Your task to perform on an android device: Clear all items from cart on ebay.com. Image 0: 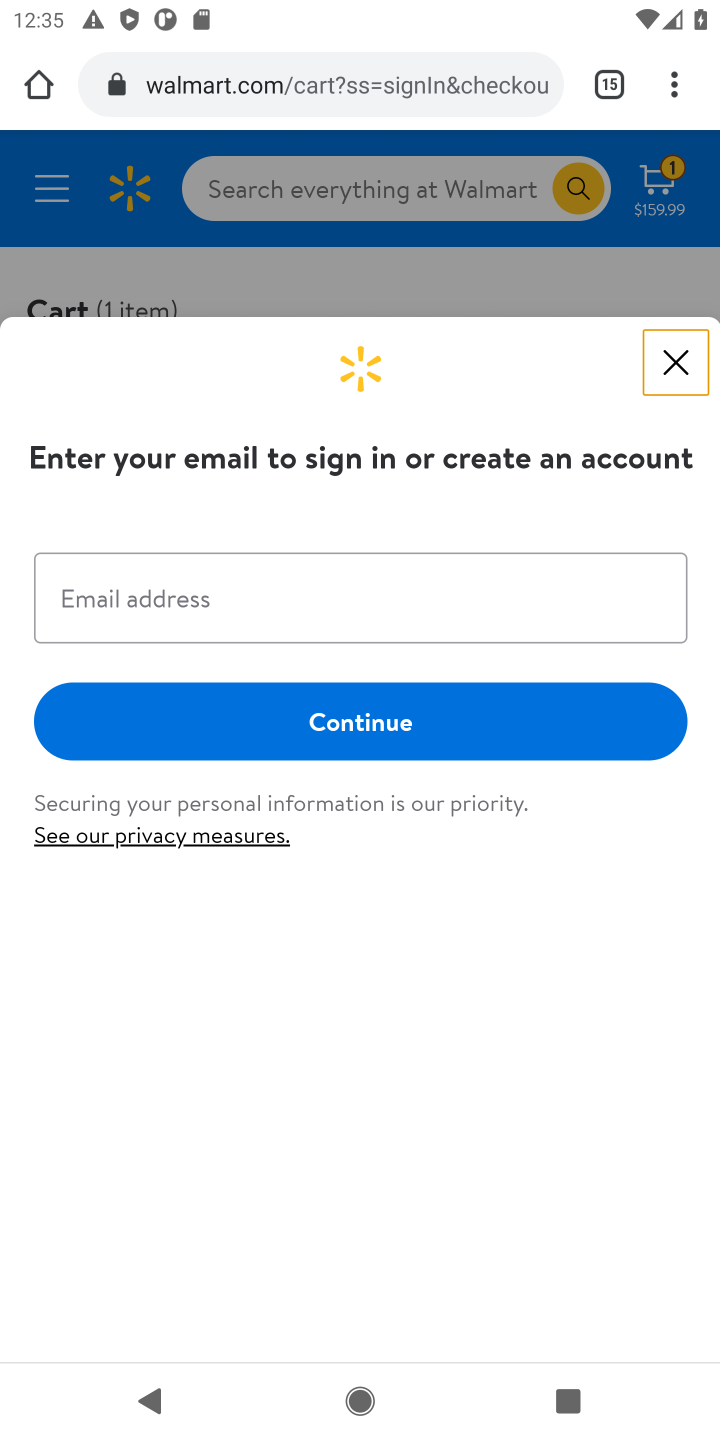
Step 0: press home button
Your task to perform on an android device: Clear all items from cart on ebay.com. Image 1: 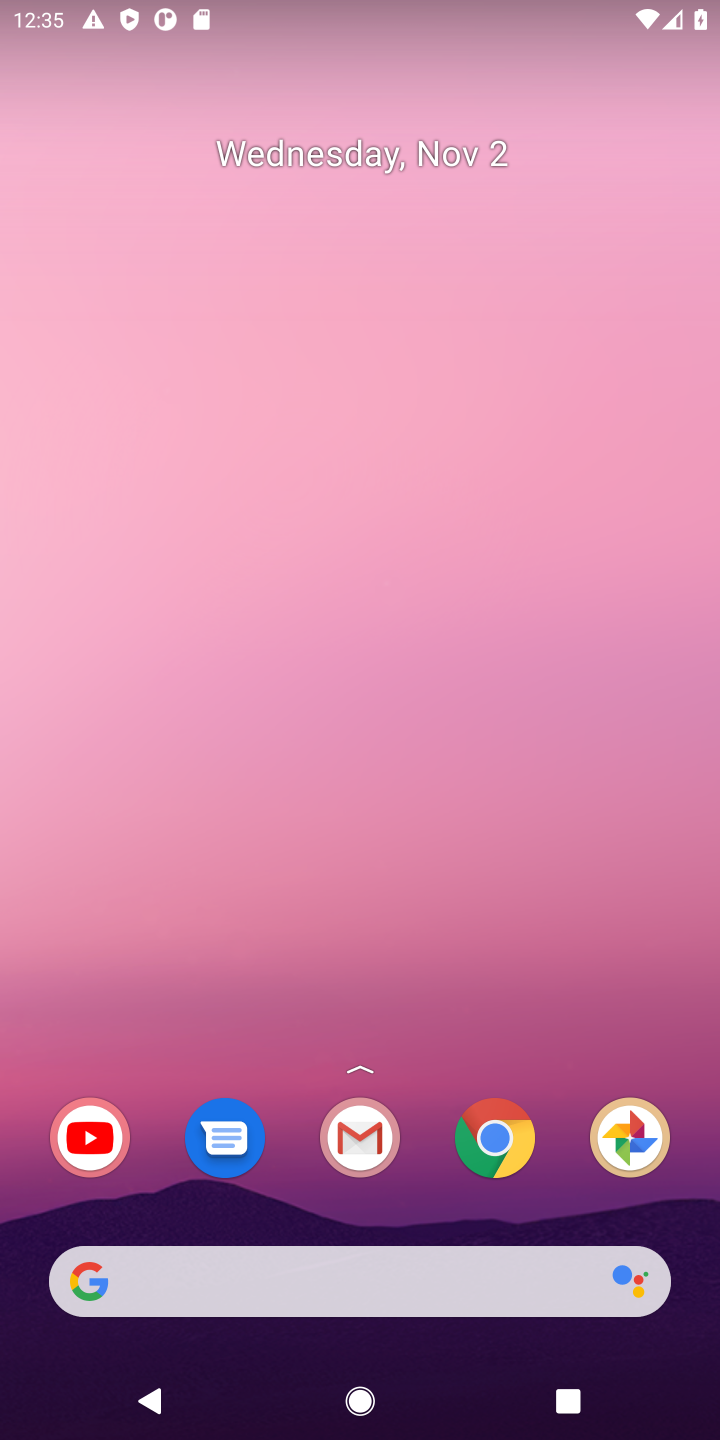
Step 1: click (136, 1261)
Your task to perform on an android device: Clear all items from cart on ebay.com. Image 2: 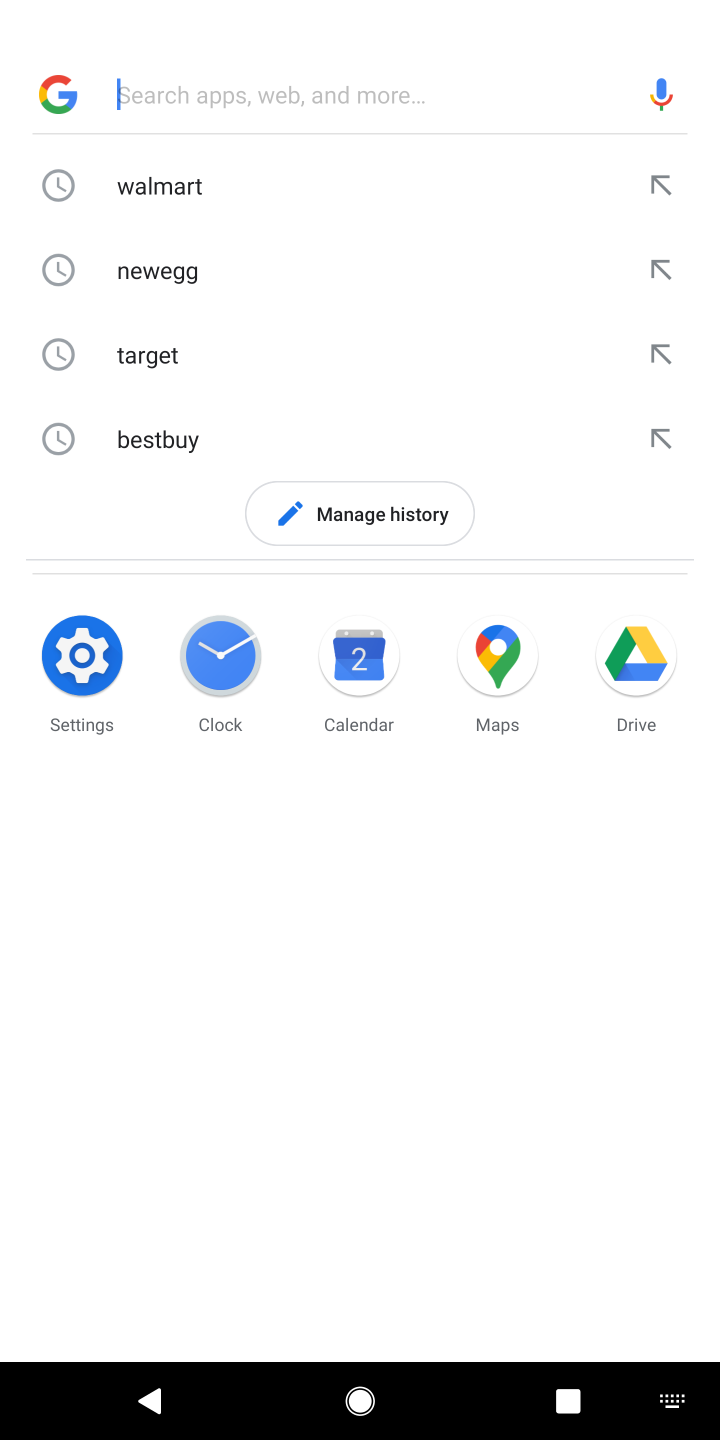
Step 2: press enter
Your task to perform on an android device: Clear all items from cart on ebay.com. Image 3: 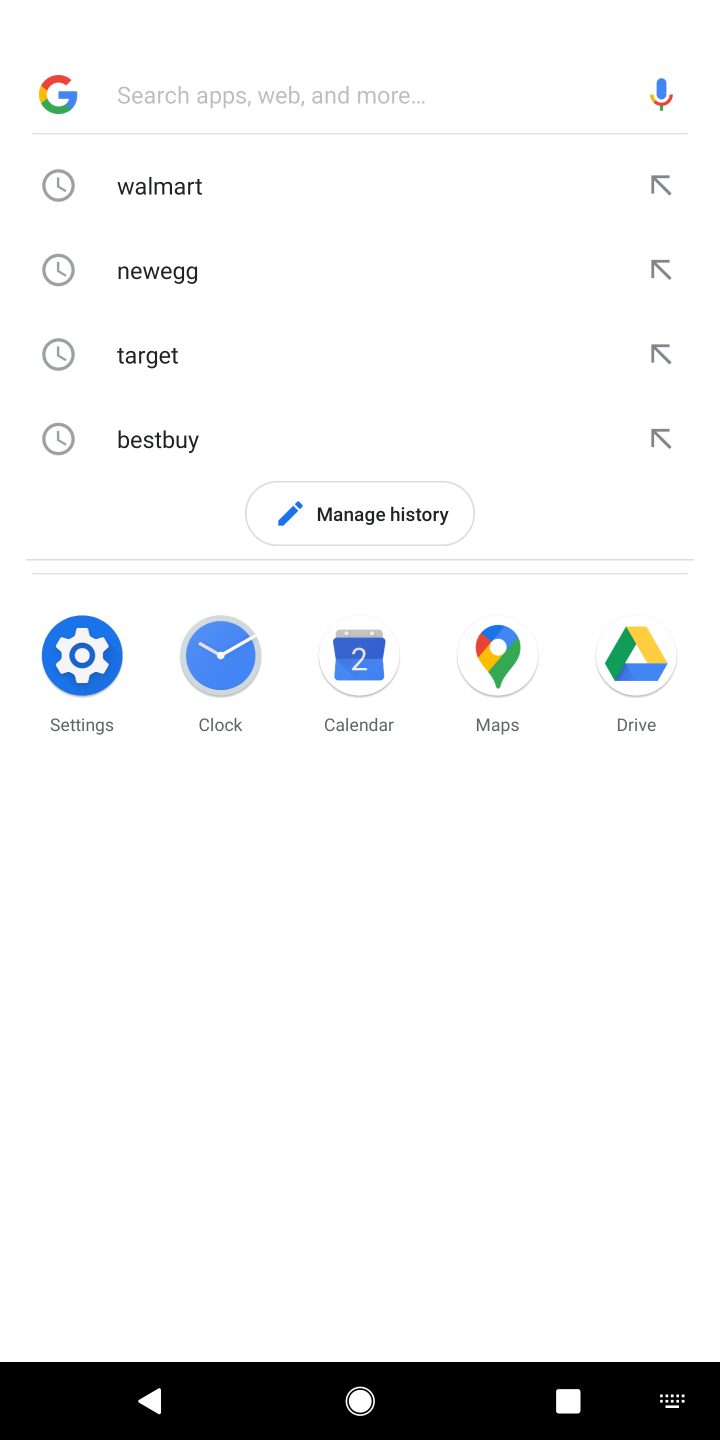
Step 3: type "ebay.com"
Your task to perform on an android device: Clear all items from cart on ebay.com. Image 4: 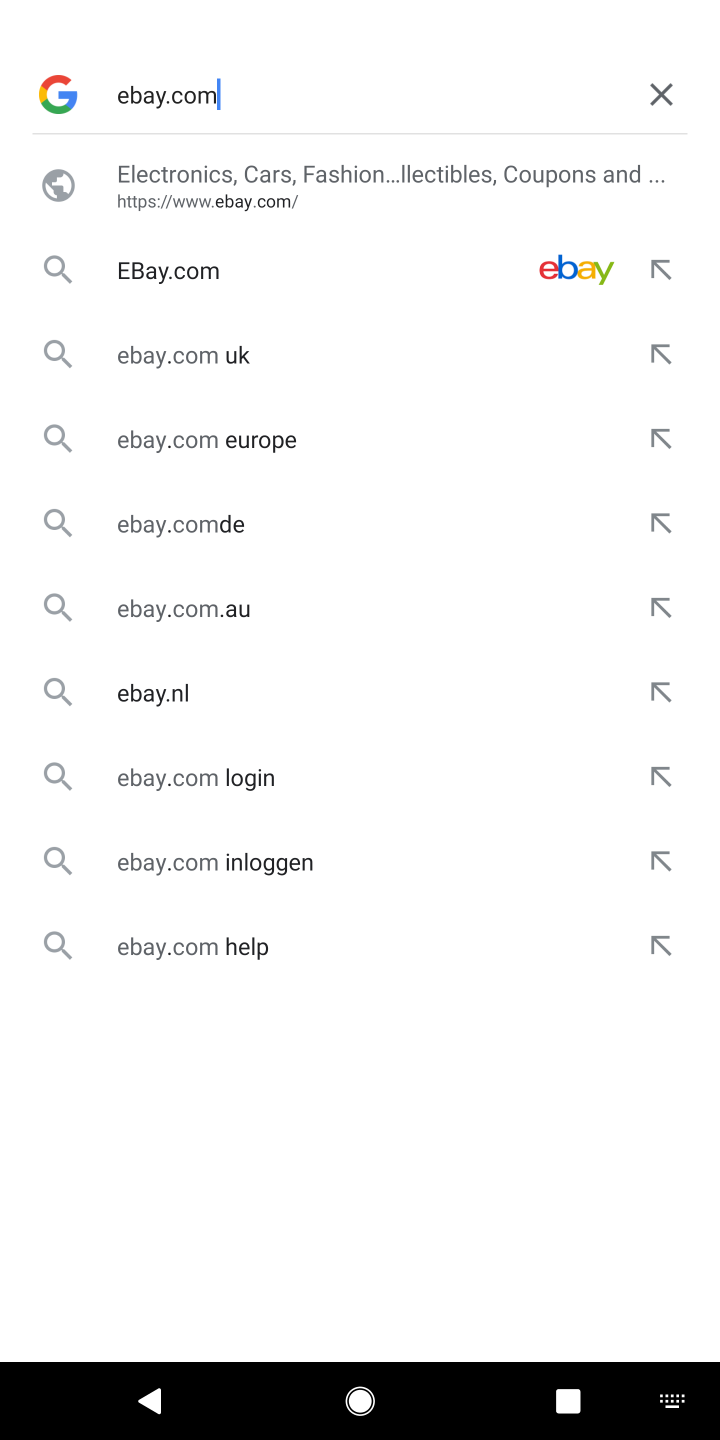
Step 4: press enter
Your task to perform on an android device: Clear all items from cart on ebay.com. Image 5: 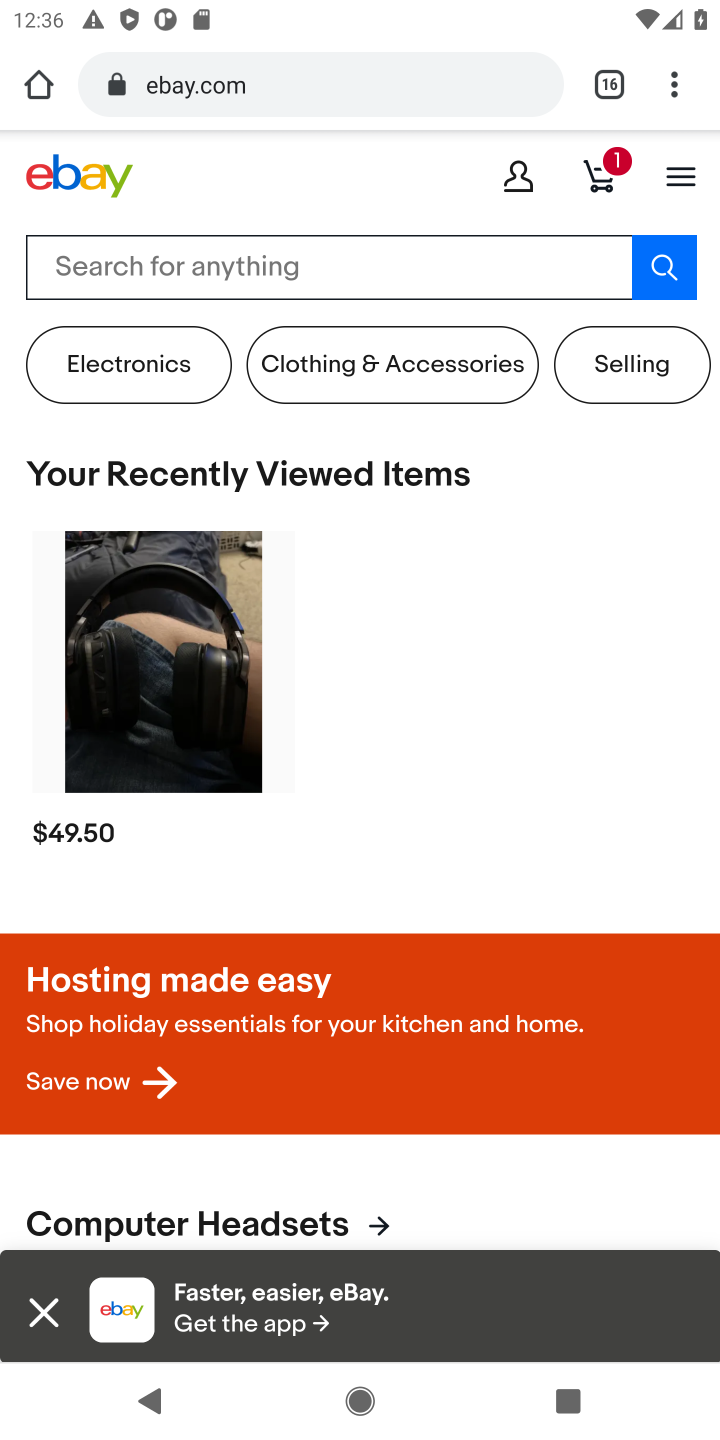
Step 5: click (608, 177)
Your task to perform on an android device: Clear all items from cart on ebay.com. Image 6: 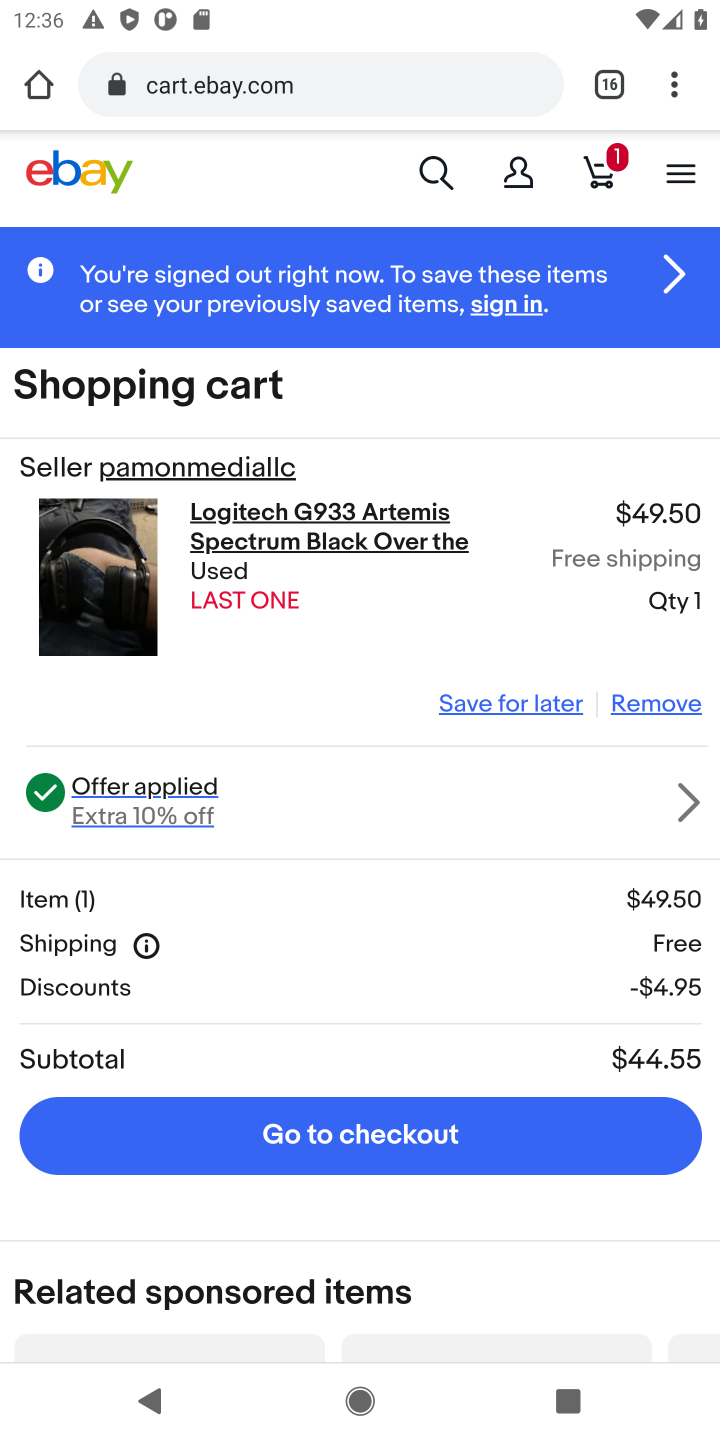
Step 6: drag from (386, 901) to (356, 658)
Your task to perform on an android device: Clear all items from cart on ebay.com. Image 7: 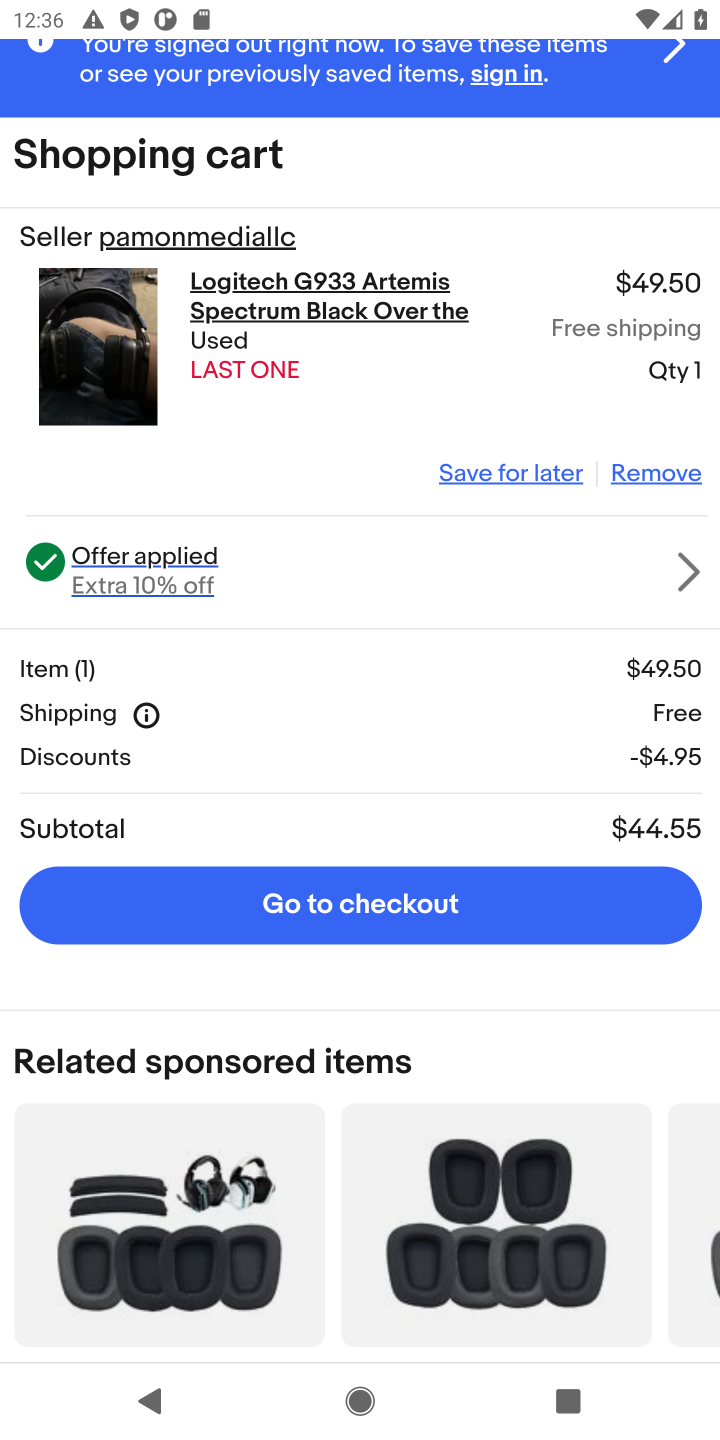
Step 7: click (641, 471)
Your task to perform on an android device: Clear all items from cart on ebay.com. Image 8: 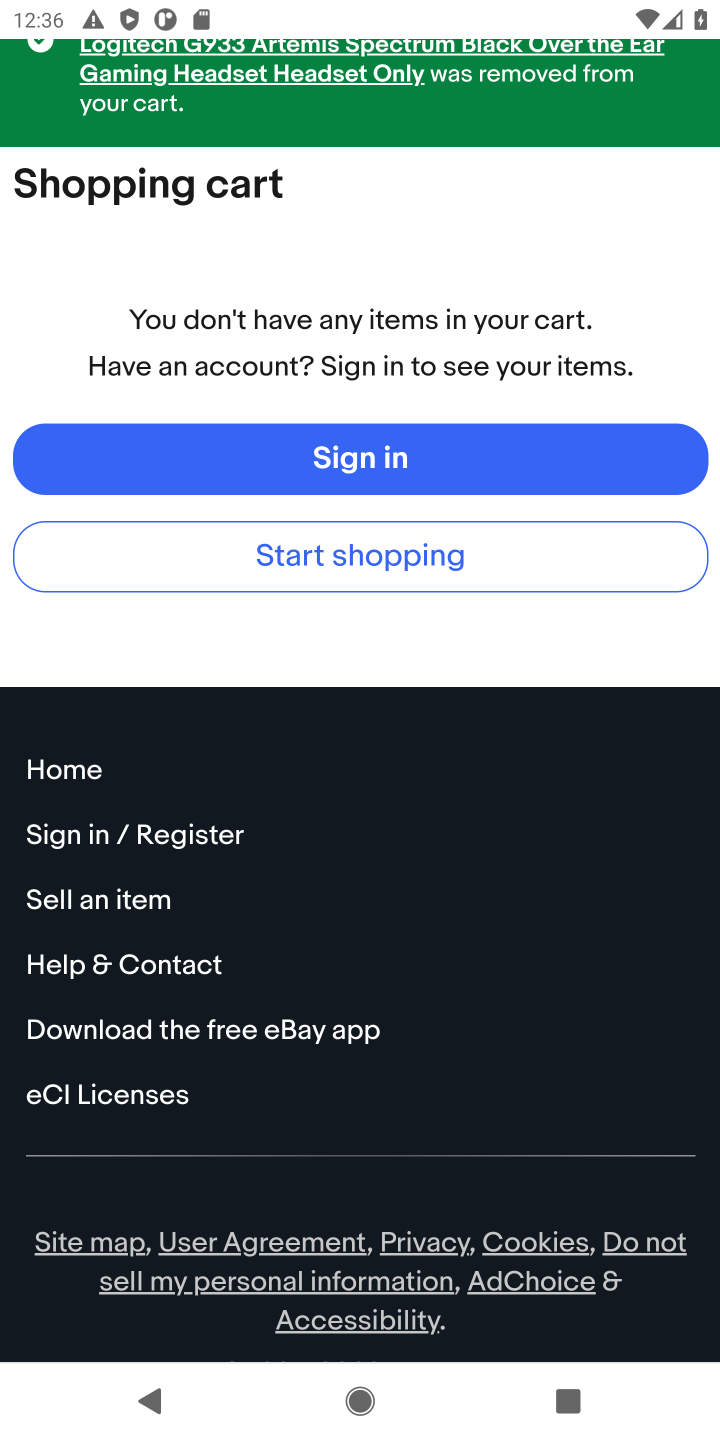
Step 8: task complete